Your task to perform on an android device: Open Amazon Image 0: 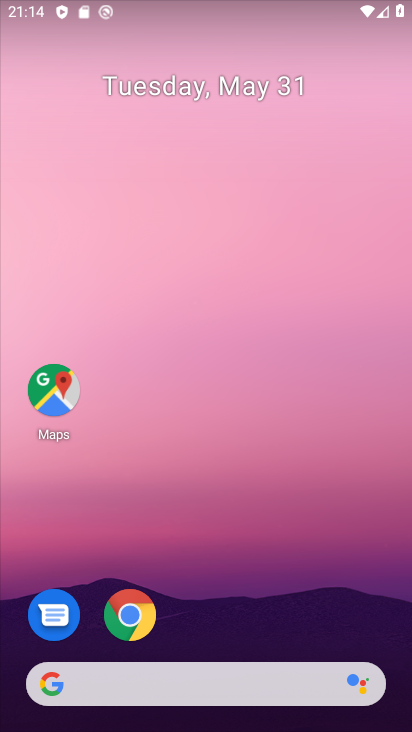
Step 0: click (199, 689)
Your task to perform on an android device: Open Amazon Image 1: 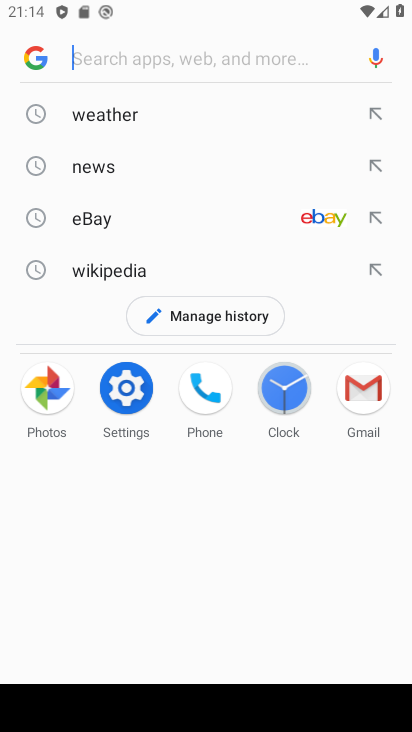
Step 1: type "Amazon"
Your task to perform on an android device: Open Amazon Image 2: 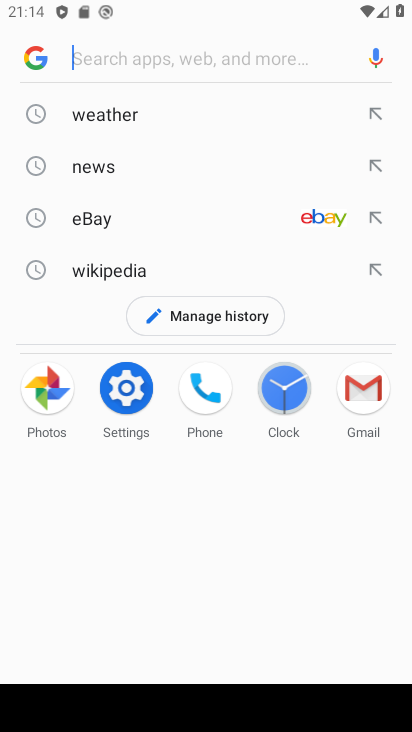
Step 2: click (175, 53)
Your task to perform on an android device: Open Amazon Image 3: 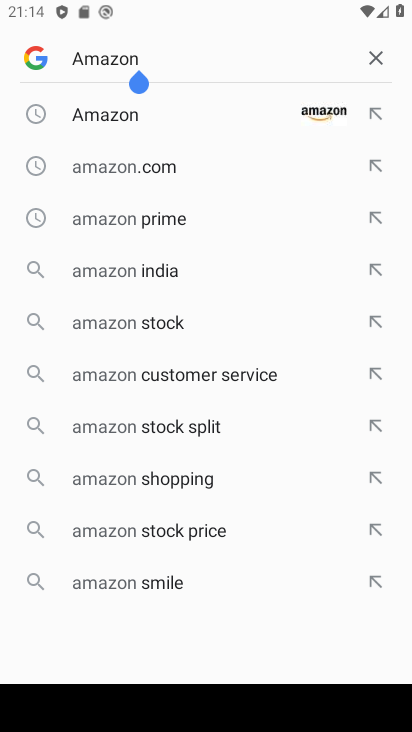
Step 3: click (131, 114)
Your task to perform on an android device: Open Amazon Image 4: 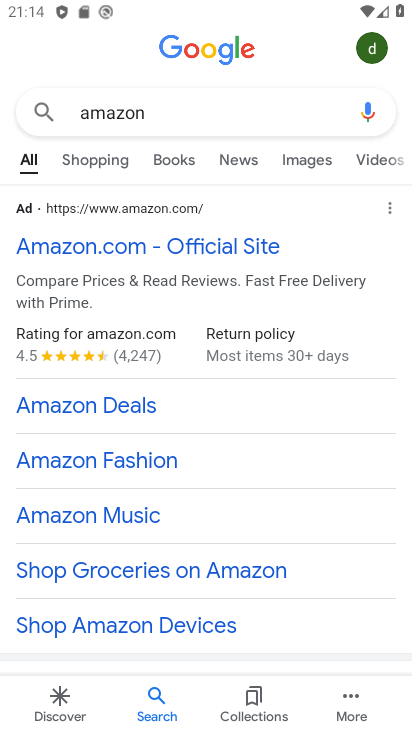
Step 4: drag from (368, 597) to (351, 247)
Your task to perform on an android device: Open Amazon Image 5: 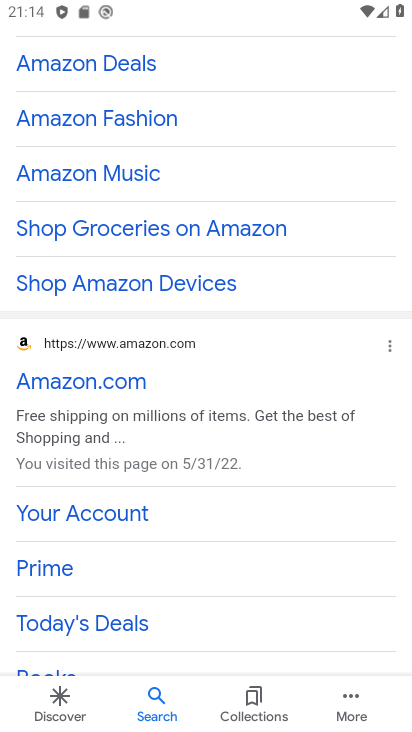
Step 5: click (121, 377)
Your task to perform on an android device: Open Amazon Image 6: 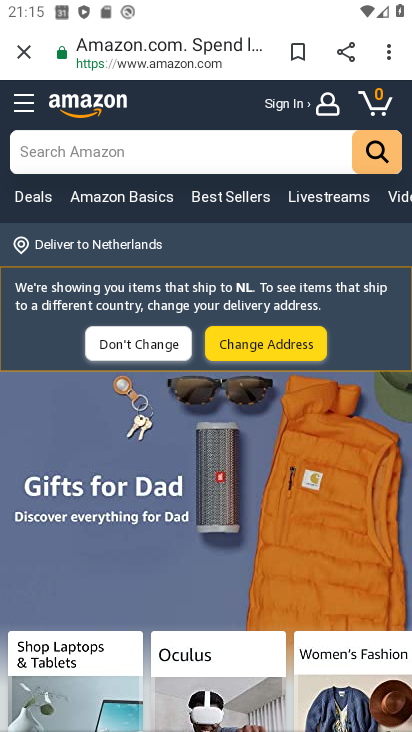
Step 6: task complete